Your task to perform on an android device: toggle notifications settings in the gmail app Image 0: 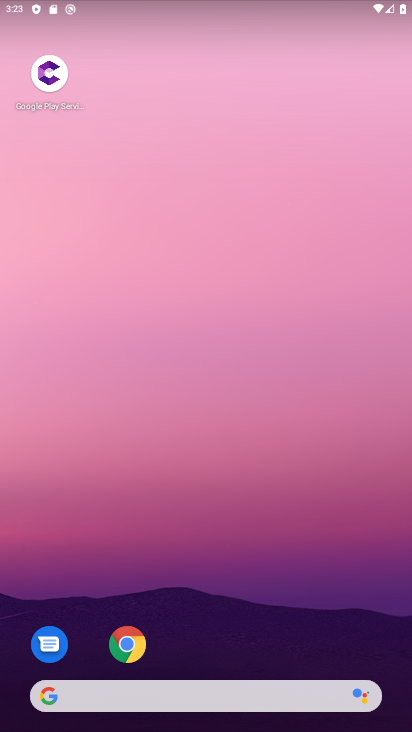
Step 0: drag from (223, 337) to (146, 6)
Your task to perform on an android device: toggle notifications settings in the gmail app Image 1: 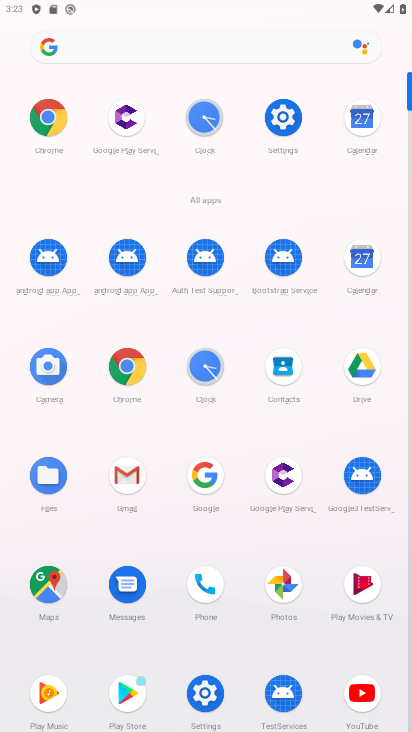
Step 1: click (130, 485)
Your task to perform on an android device: toggle notifications settings in the gmail app Image 2: 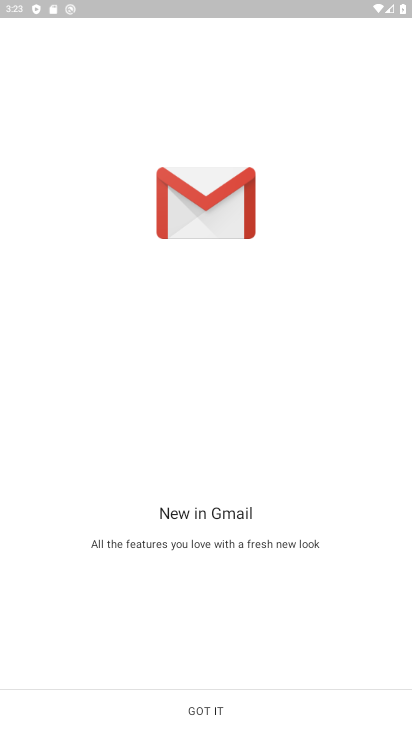
Step 2: click (223, 694)
Your task to perform on an android device: toggle notifications settings in the gmail app Image 3: 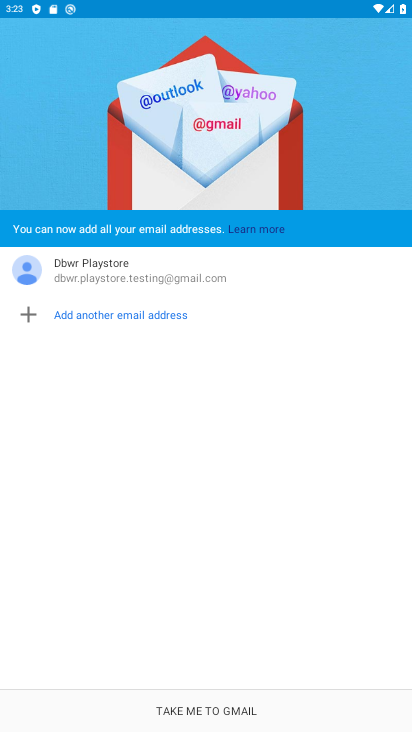
Step 3: click (241, 706)
Your task to perform on an android device: toggle notifications settings in the gmail app Image 4: 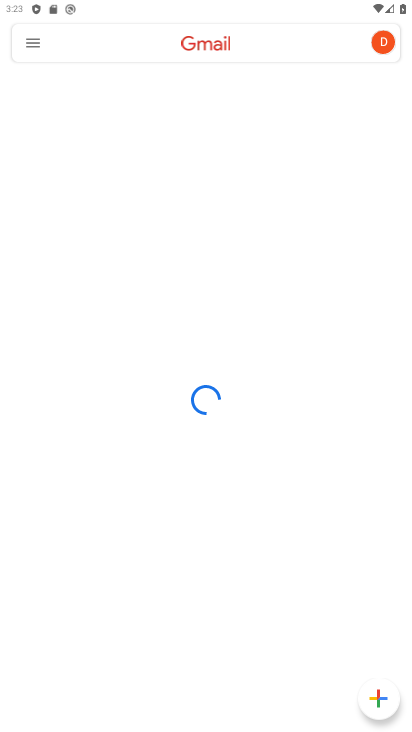
Step 4: click (32, 35)
Your task to perform on an android device: toggle notifications settings in the gmail app Image 5: 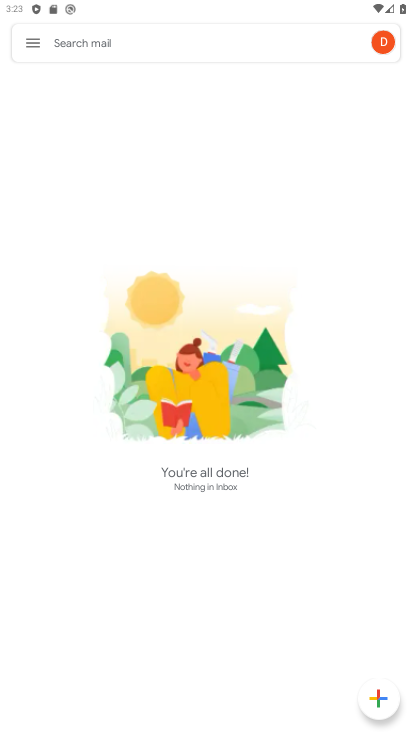
Step 5: click (28, 50)
Your task to perform on an android device: toggle notifications settings in the gmail app Image 6: 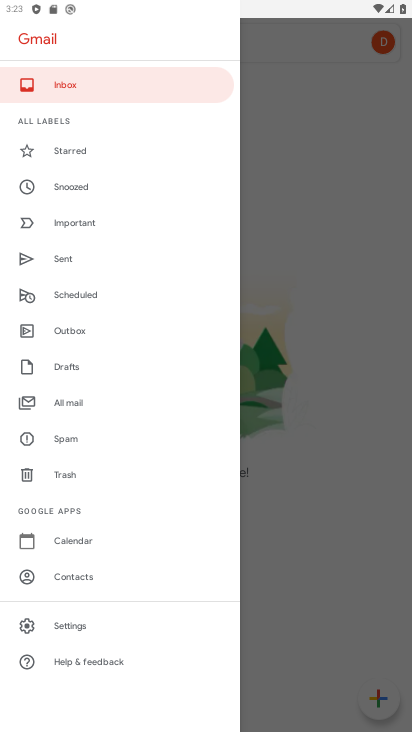
Step 6: drag from (139, 651) to (149, 217)
Your task to perform on an android device: toggle notifications settings in the gmail app Image 7: 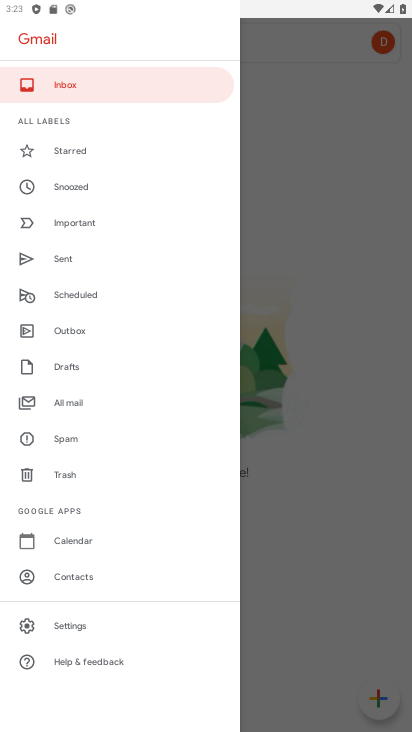
Step 7: click (97, 625)
Your task to perform on an android device: toggle notifications settings in the gmail app Image 8: 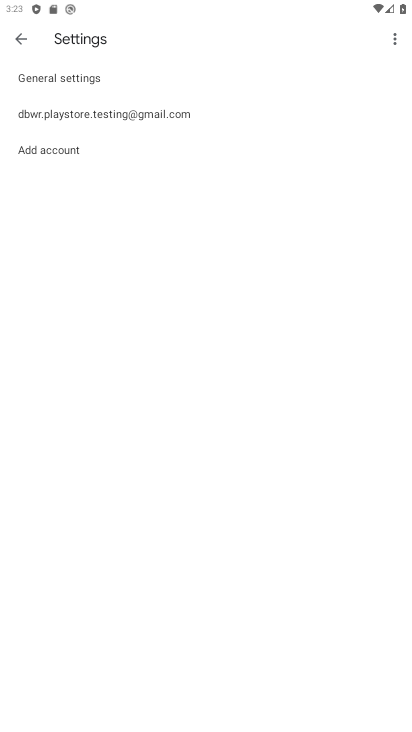
Step 8: click (125, 106)
Your task to perform on an android device: toggle notifications settings in the gmail app Image 9: 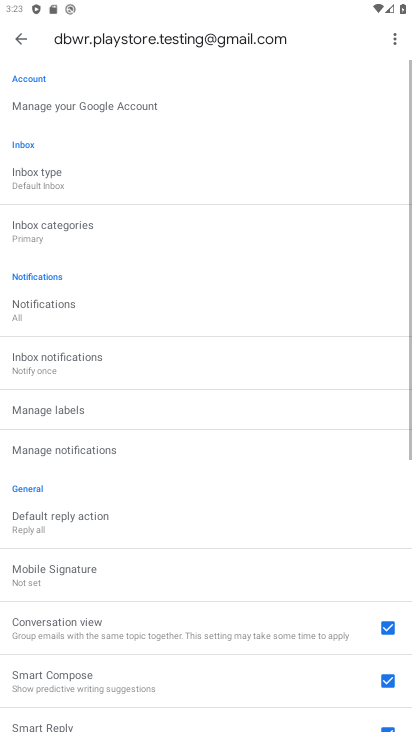
Step 9: click (97, 306)
Your task to perform on an android device: toggle notifications settings in the gmail app Image 10: 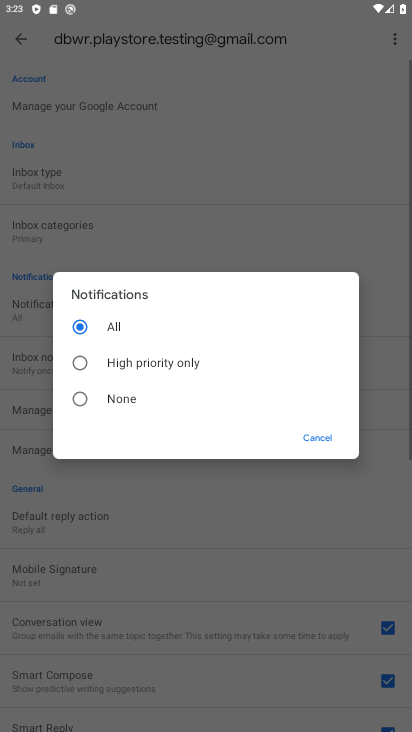
Step 10: click (135, 400)
Your task to perform on an android device: toggle notifications settings in the gmail app Image 11: 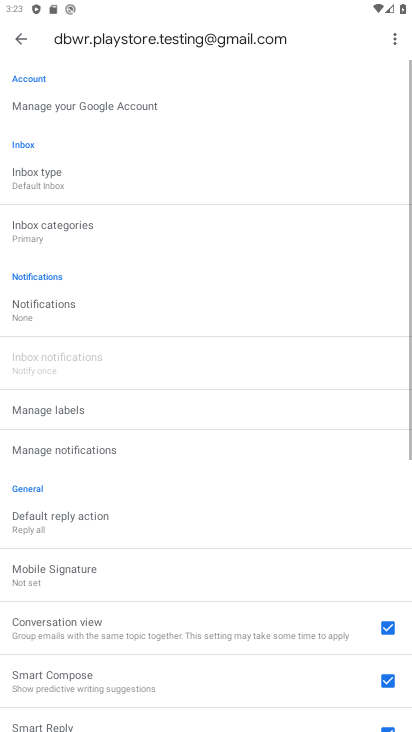
Step 11: task complete